Your task to perform on an android device: Open the map Image 0: 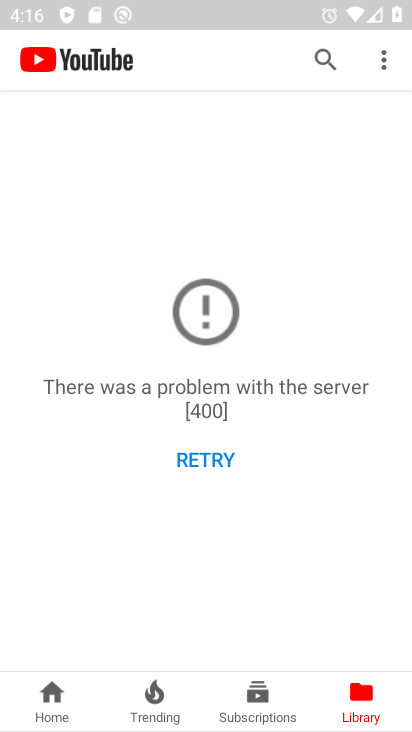
Step 0: press home button
Your task to perform on an android device: Open the map Image 1: 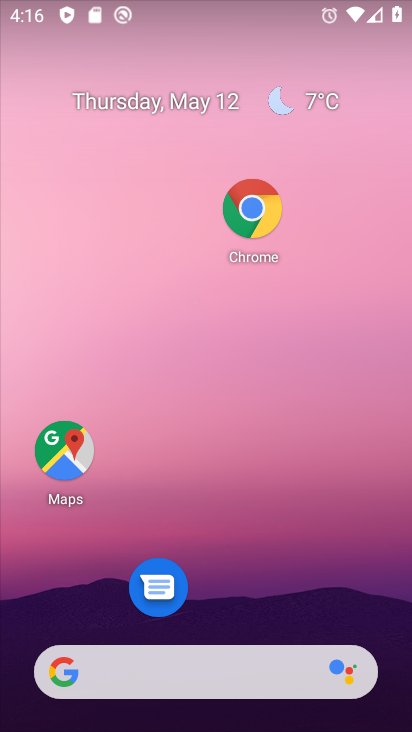
Step 1: click (60, 456)
Your task to perform on an android device: Open the map Image 2: 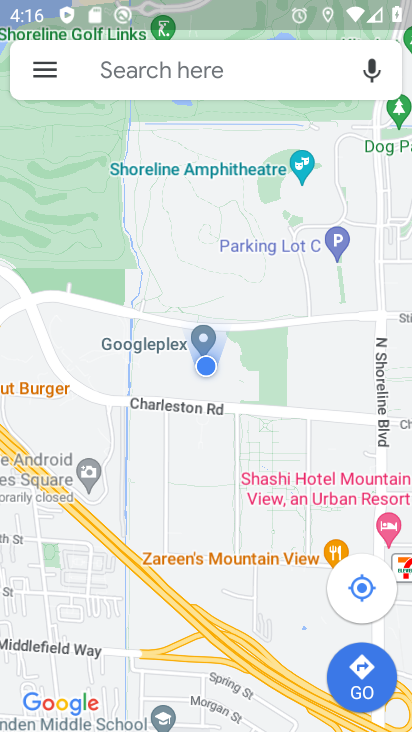
Step 2: task complete